Your task to perform on an android device: Show me popular games on the Play Store Image 0: 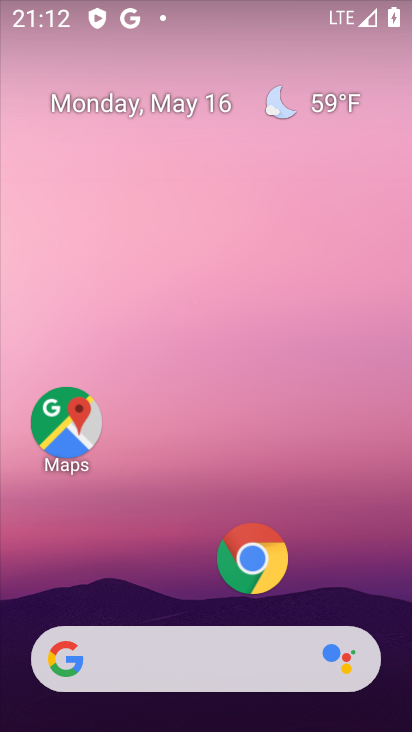
Step 0: drag from (197, 623) to (300, 75)
Your task to perform on an android device: Show me popular games on the Play Store Image 1: 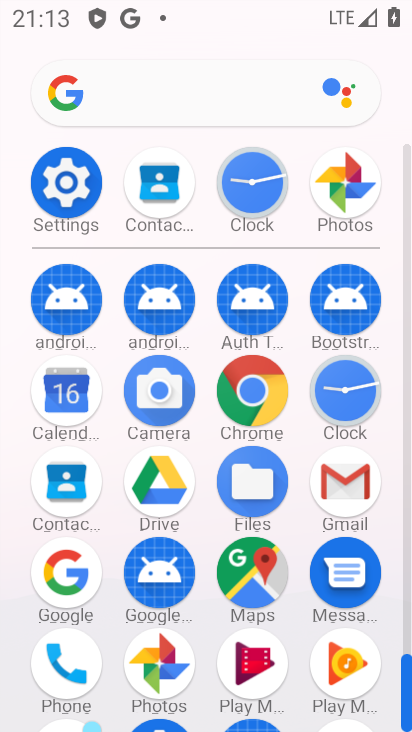
Step 1: drag from (188, 656) to (242, 130)
Your task to perform on an android device: Show me popular games on the Play Store Image 2: 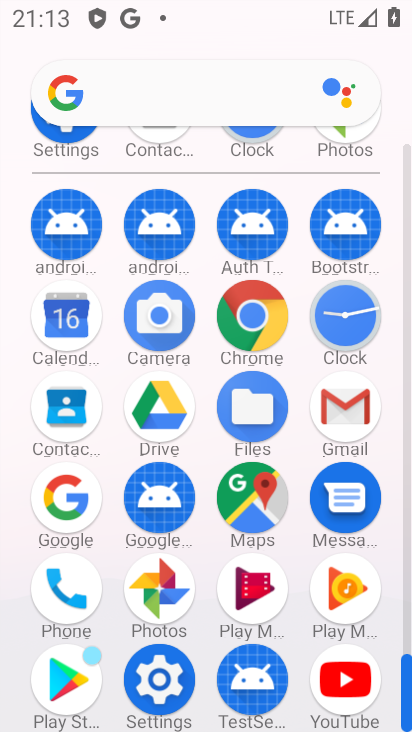
Step 2: click (75, 657)
Your task to perform on an android device: Show me popular games on the Play Store Image 3: 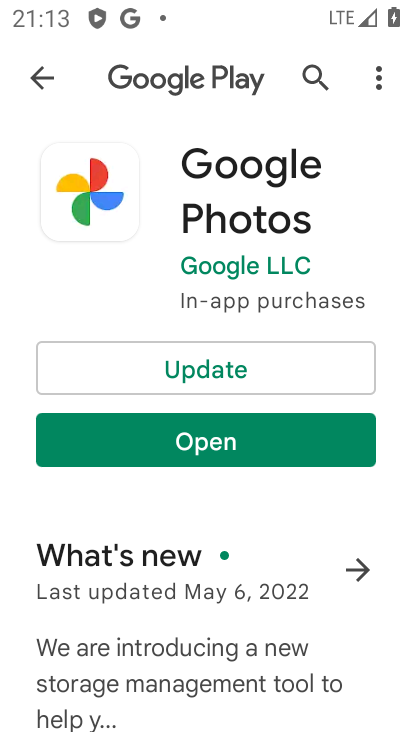
Step 3: click (249, 450)
Your task to perform on an android device: Show me popular games on the Play Store Image 4: 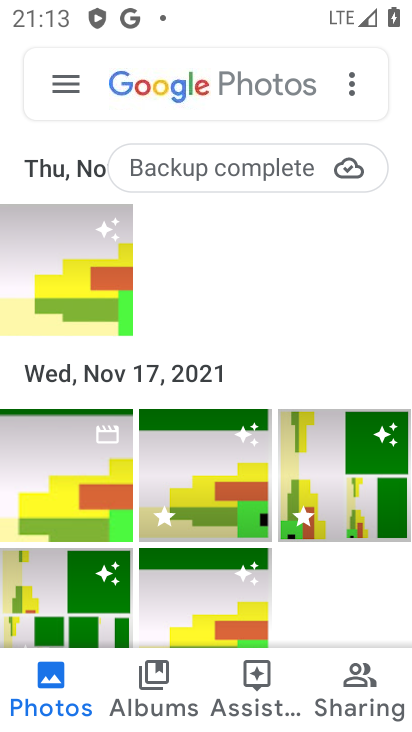
Step 4: press back button
Your task to perform on an android device: Show me popular games on the Play Store Image 5: 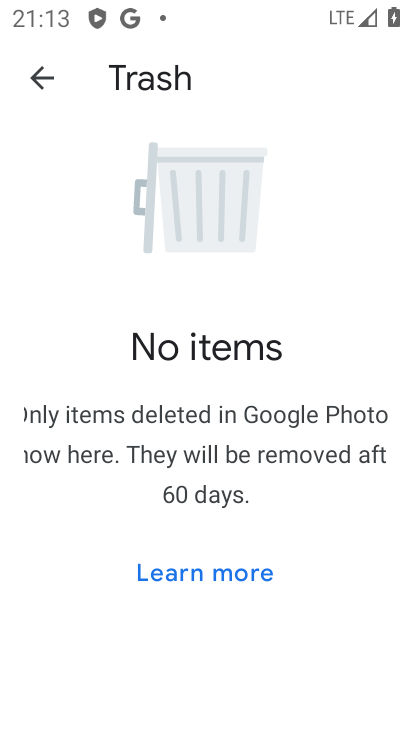
Step 5: press back button
Your task to perform on an android device: Show me popular games on the Play Store Image 6: 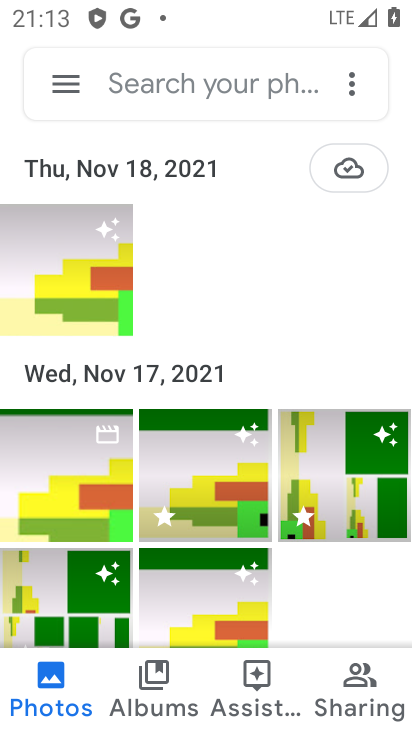
Step 6: press back button
Your task to perform on an android device: Show me popular games on the Play Store Image 7: 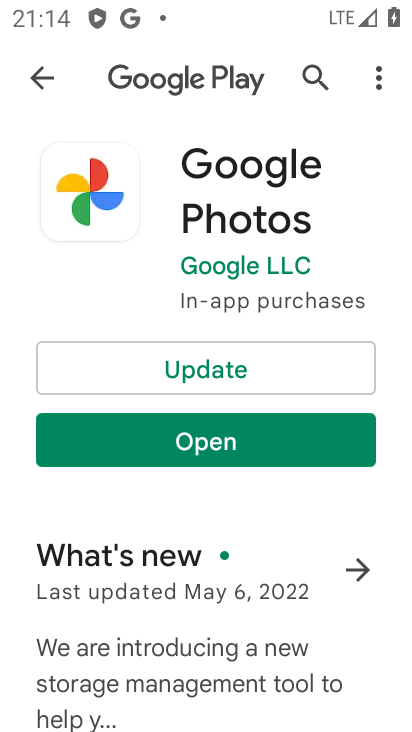
Step 7: click (38, 77)
Your task to perform on an android device: Show me popular games on the Play Store Image 8: 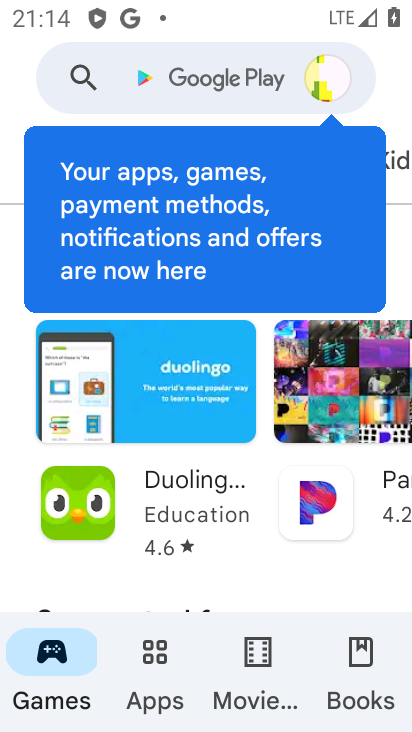
Step 8: click (61, 681)
Your task to perform on an android device: Show me popular games on the Play Store Image 9: 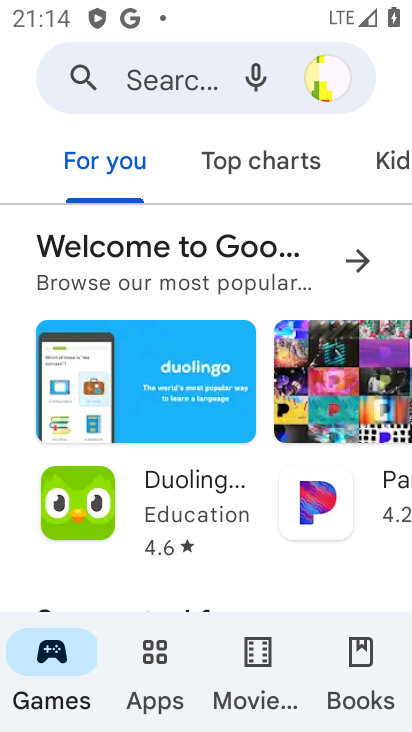
Step 9: drag from (179, 503) to (306, 51)
Your task to perform on an android device: Show me popular games on the Play Store Image 10: 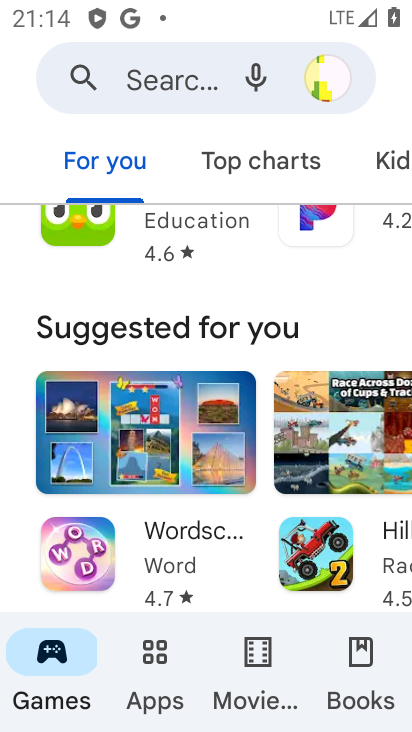
Step 10: drag from (184, 587) to (283, 130)
Your task to perform on an android device: Show me popular games on the Play Store Image 11: 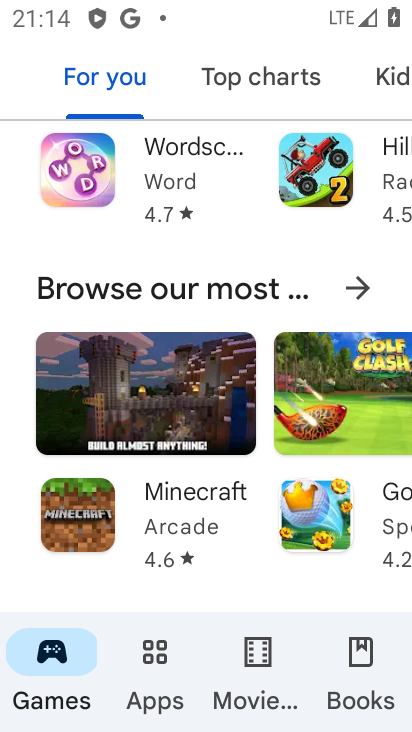
Step 11: click (356, 286)
Your task to perform on an android device: Show me popular games on the Play Store Image 12: 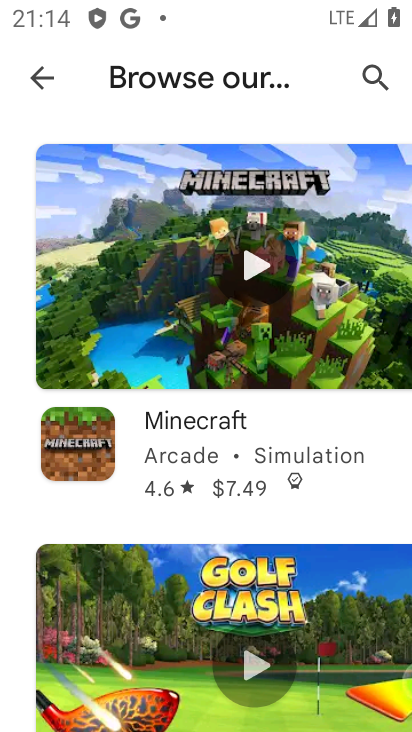
Step 12: task complete